Your task to perform on an android device: turn pop-ups on in chrome Image 0: 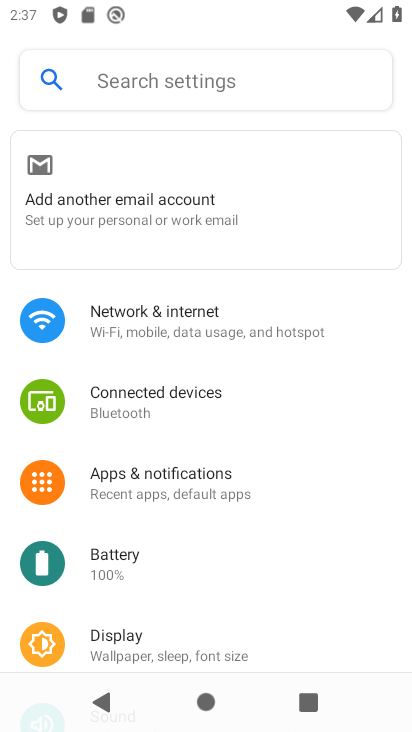
Step 0: press home button
Your task to perform on an android device: turn pop-ups on in chrome Image 1: 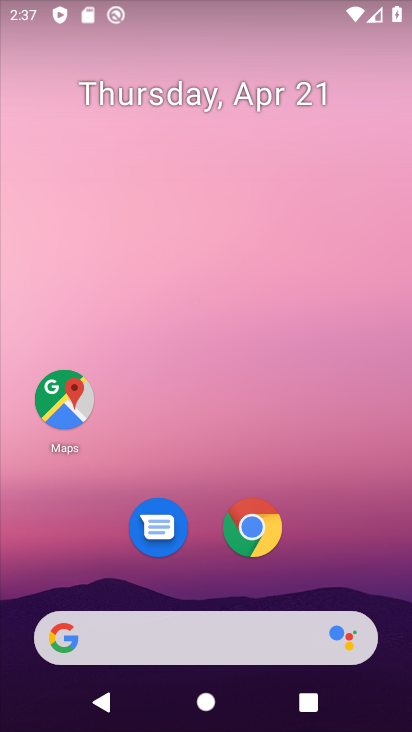
Step 1: click (249, 533)
Your task to perform on an android device: turn pop-ups on in chrome Image 2: 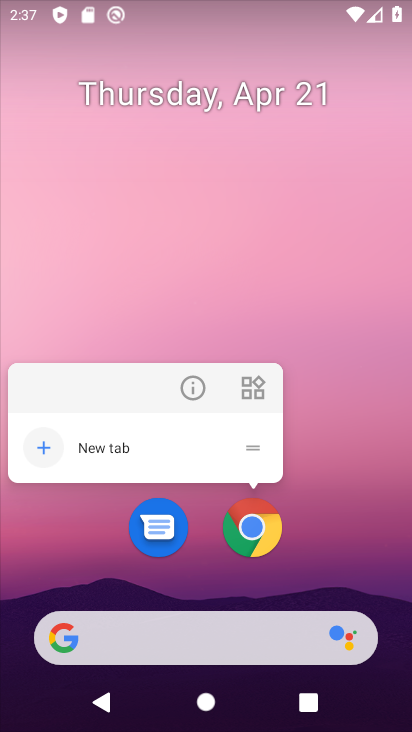
Step 2: click (249, 533)
Your task to perform on an android device: turn pop-ups on in chrome Image 3: 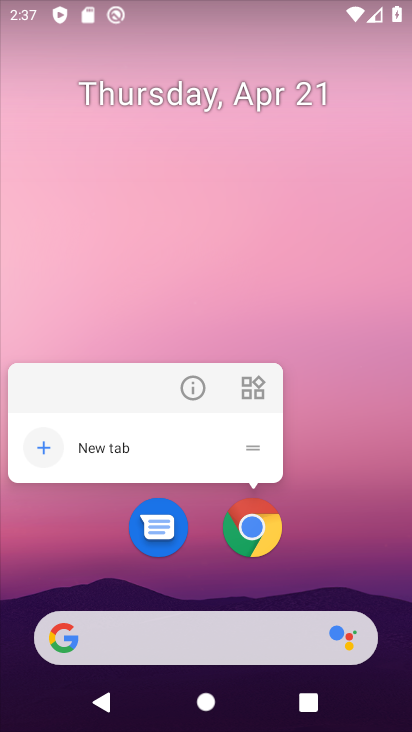
Step 3: click (249, 533)
Your task to perform on an android device: turn pop-ups on in chrome Image 4: 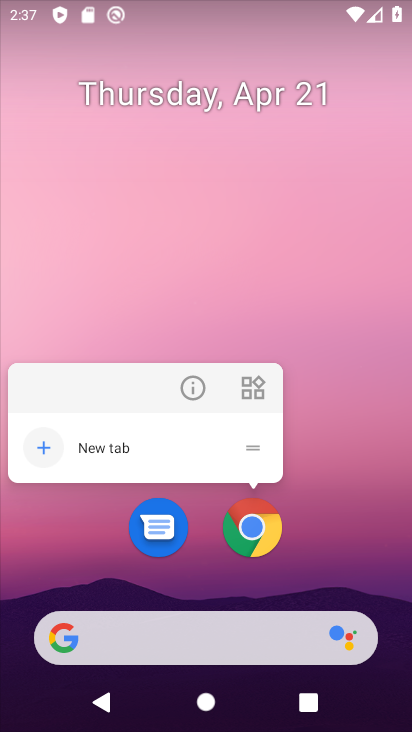
Step 4: click (249, 529)
Your task to perform on an android device: turn pop-ups on in chrome Image 5: 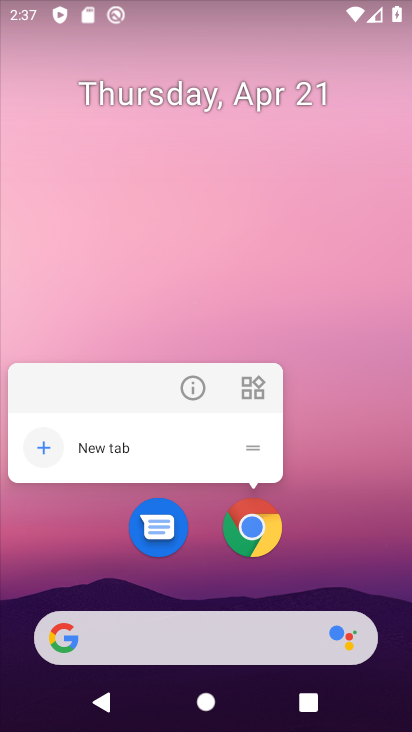
Step 5: click (249, 529)
Your task to perform on an android device: turn pop-ups on in chrome Image 6: 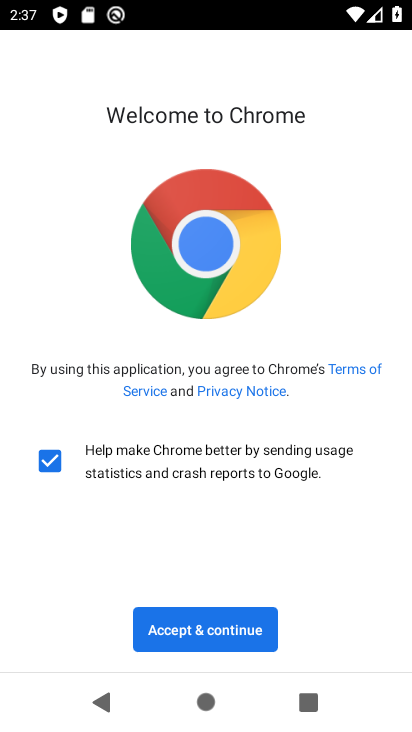
Step 6: click (235, 633)
Your task to perform on an android device: turn pop-ups on in chrome Image 7: 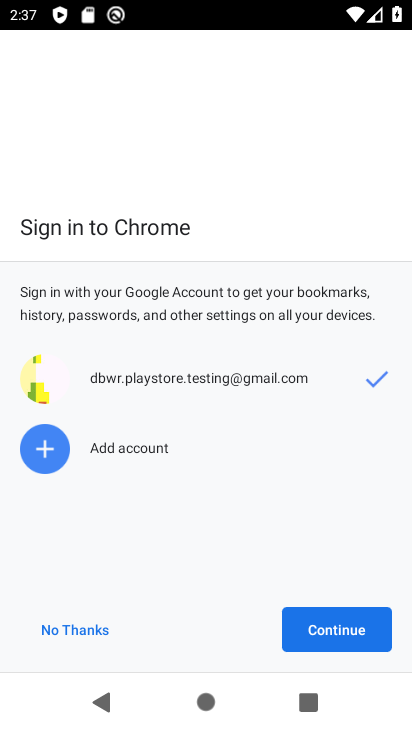
Step 7: click (348, 641)
Your task to perform on an android device: turn pop-ups on in chrome Image 8: 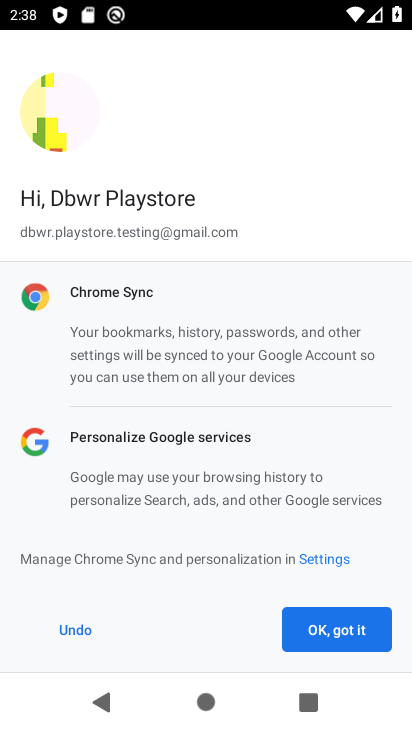
Step 8: click (343, 634)
Your task to perform on an android device: turn pop-ups on in chrome Image 9: 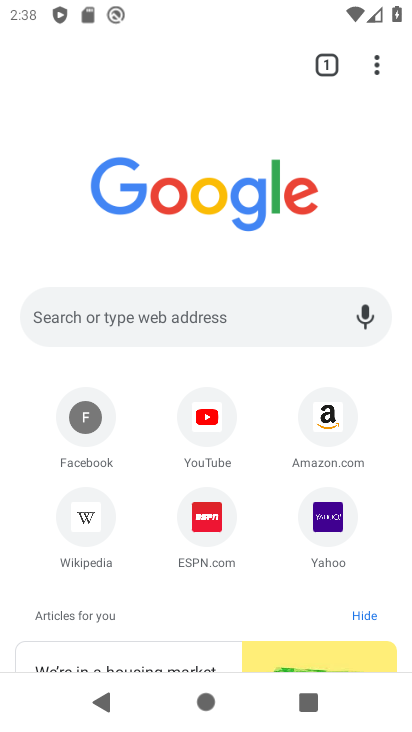
Step 9: click (377, 56)
Your task to perform on an android device: turn pop-ups on in chrome Image 10: 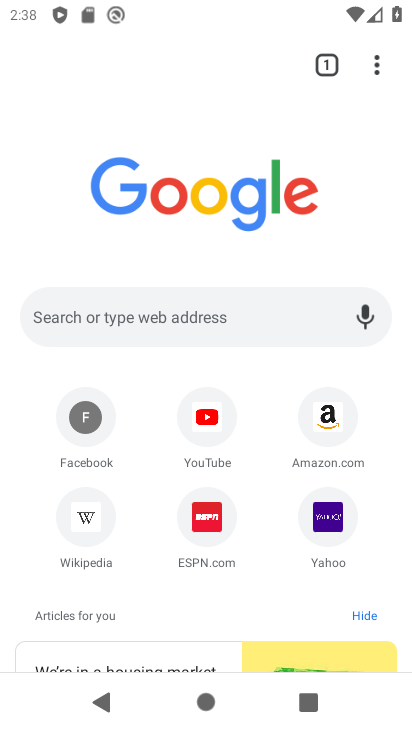
Step 10: click (375, 61)
Your task to perform on an android device: turn pop-ups on in chrome Image 11: 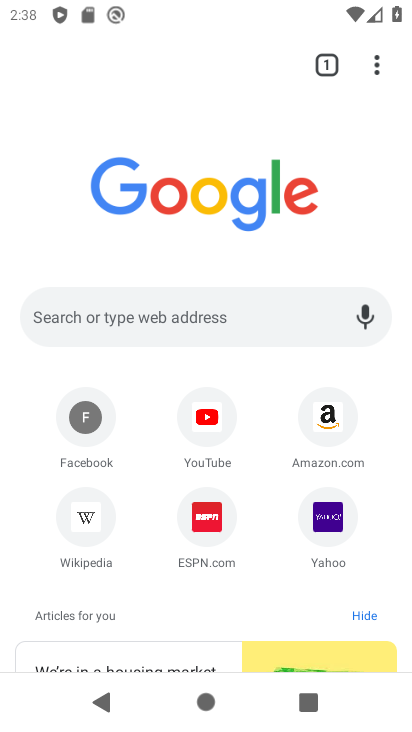
Step 11: click (368, 63)
Your task to perform on an android device: turn pop-ups on in chrome Image 12: 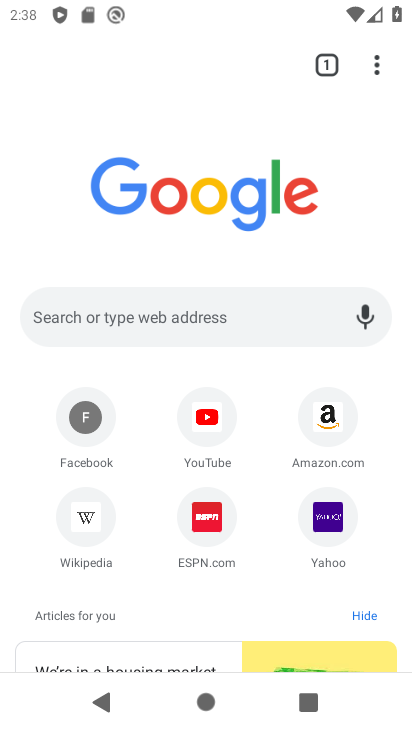
Step 12: click (368, 63)
Your task to perform on an android device: turn pop-ups on in chrome Image 13: 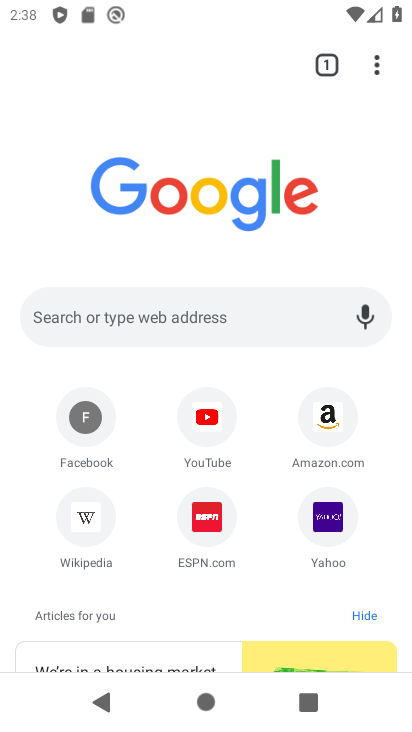
Step 13: click (374, 68)
Your task to perform on an android device: turn pop-ups on in chrome Image 14: 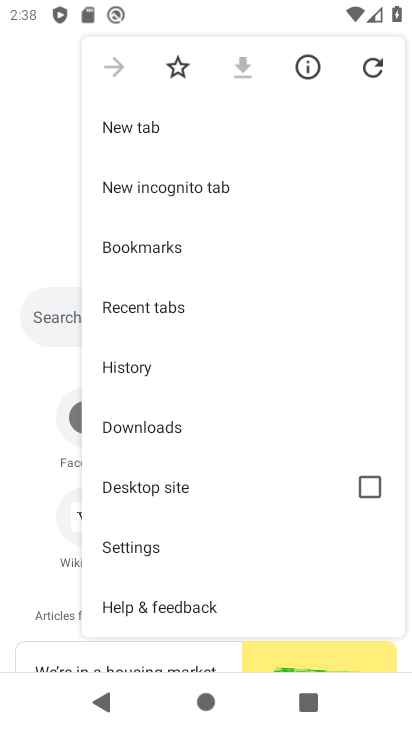
Step 14: drag from (198, 577) to (208, 161)
Your task to perform on an android device: turn pop-ups on in chrome Image 15: 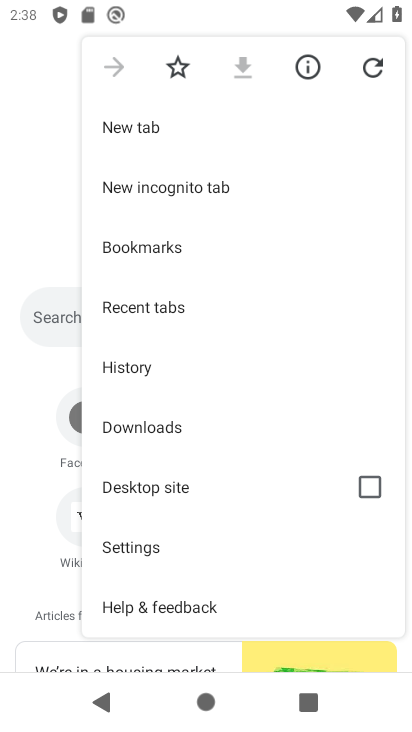
Step 15: drag from (158, 617) to (208, 235)
Your task to perform on an android device: turn pop-ups on in chrome Image 16: 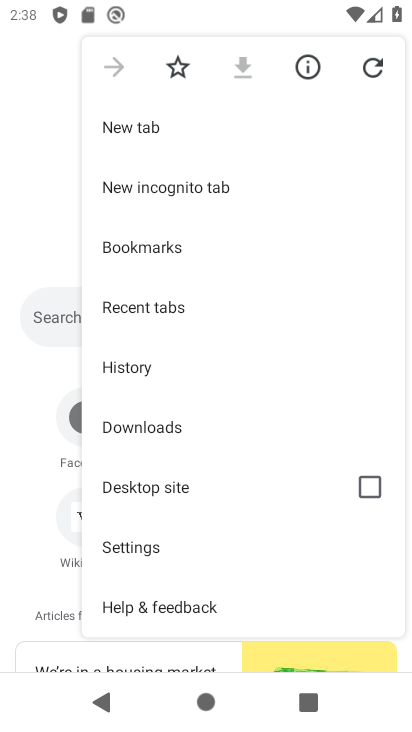
Step 16: click (149, 551)
Your task to perform on an android device: turn pop-ups on in chrome Image 17: 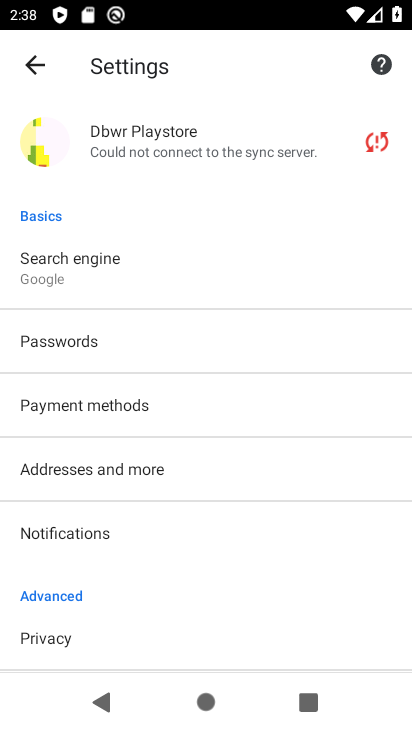
Step 17: drag from (104, 653) to (165, 269)
Your task to perform on an android device: turn pop-ups on in chrome Image 18: 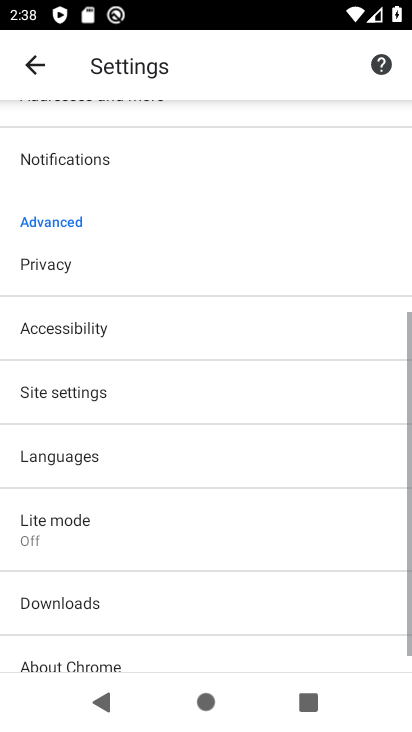
Step 18: drag from (151, 629) to (203, 229)
Your task to perform on an android device: turn pop-ups on in chrome Image 19: 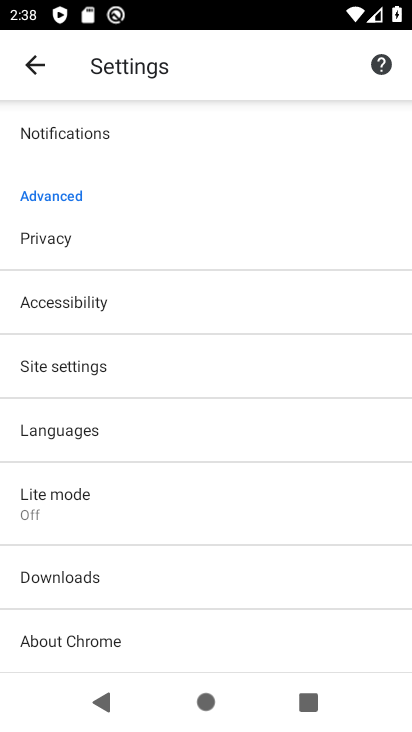
Step 19: click (84, 368)
Your task to perform on an android device: turn pop-ups on in chrome Image 20: 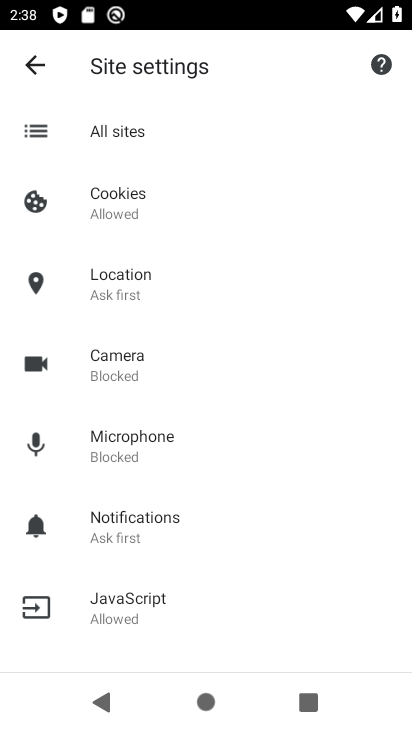
Step 20: drag from (175, 519) to (186, 274)
Your task to perform on an android device: turn pop-ups on in chrome Image 21: 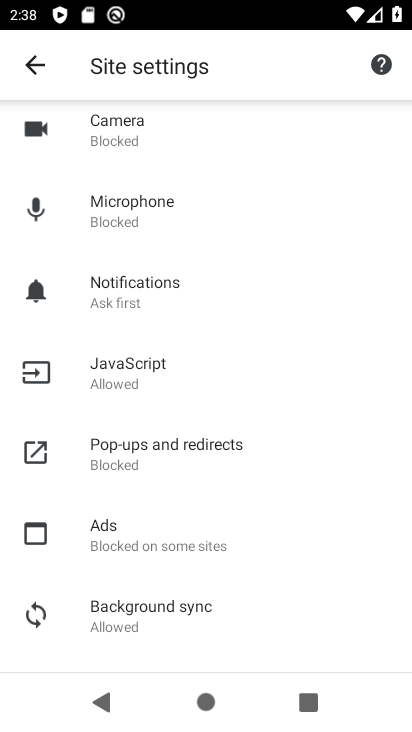
Step 21: click (154, 457)
Your task to perform on an android device: turn pop-ups on in chrome Image 22: 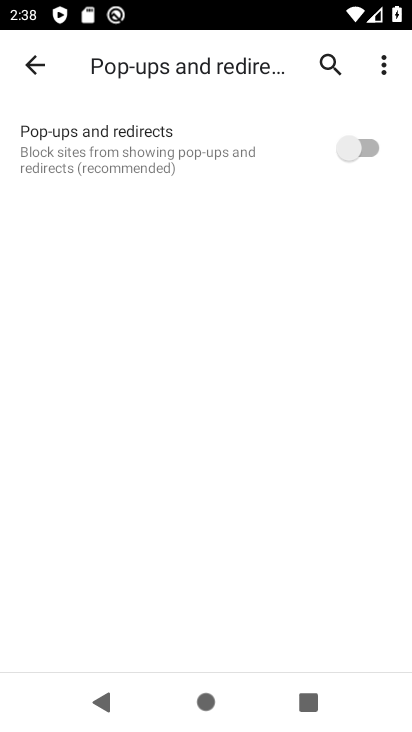
Step 22: click (370, 145)
Your task to perform on an android device: turn pop-ups on in chrome Image 23: 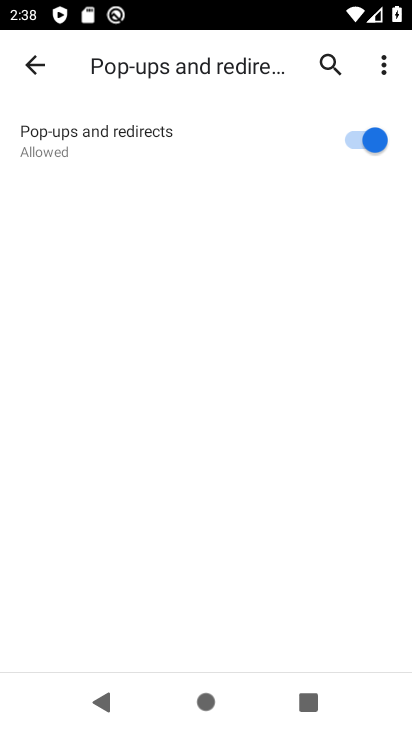
Step 23: task complete